Your task to perform on an android device: turn on the 24-hour format for clock Image 0: 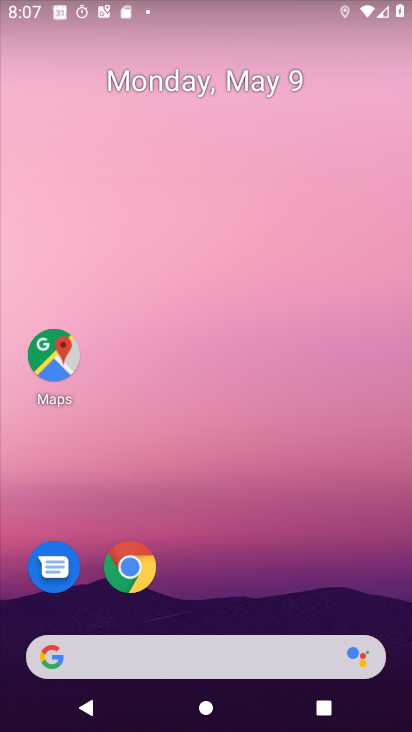
Step 0: drag from (262, 485) to (236, 71)
Your task to perform on an android device: turn on the 24-hour format for clock Image 1: 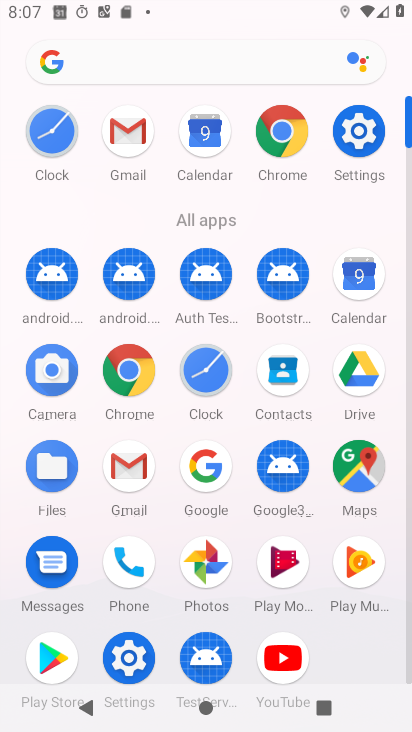
Step 1: click (216, 378)
Your task to perform on an android device: turn on the 24-hour format for clock Image 2: 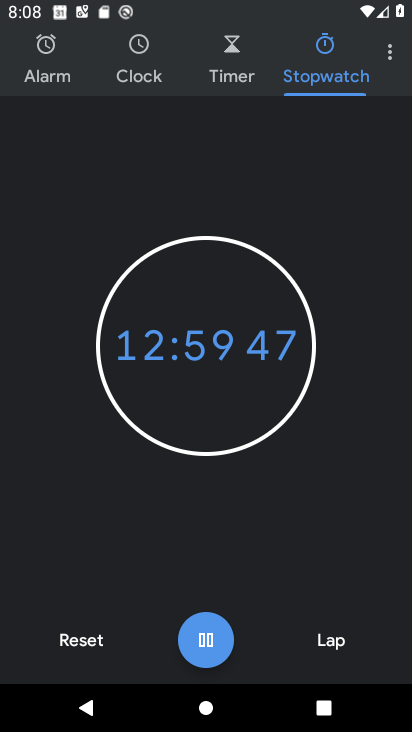
Step 2: click (395, 55)
Your task to perform on an android device: turn on the 24-hour format for clock Image 3: 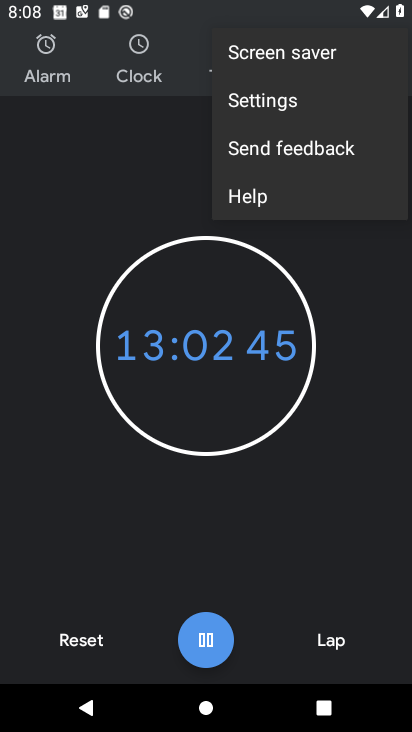
Step 3: click (342, 94)
Your task to perform on an android device: turn on the 24-hour format for clock Image 4: 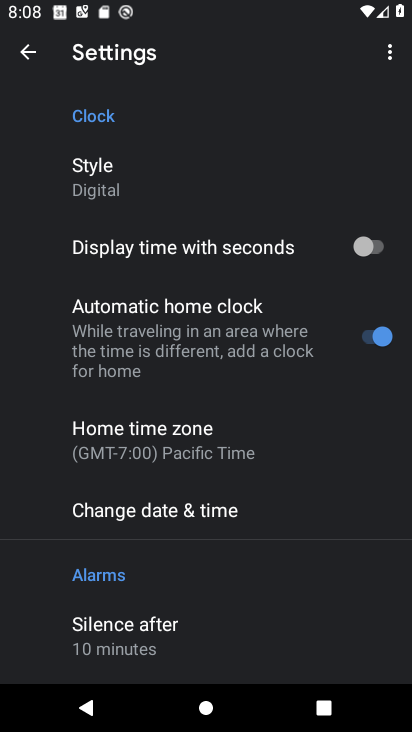
Step 4: click (207, 502)
Your task to perform on an android device: turn on the 24-hour format for clock Image 5: 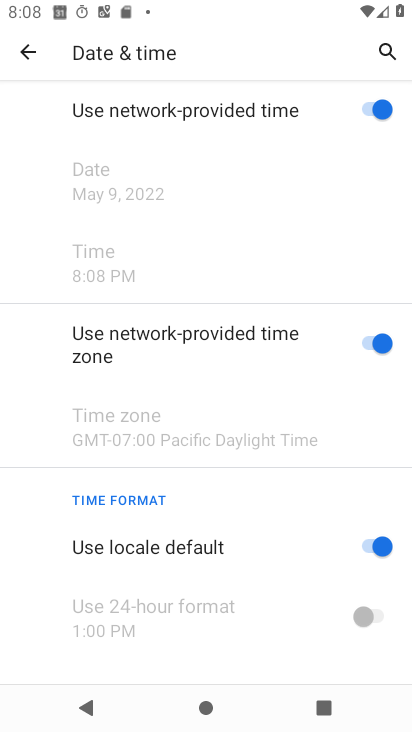
Step 5: drag from (184, 514) to (186, 237)
Your task to perform on an android device: turn on the 24-hour format for clock Image 6: 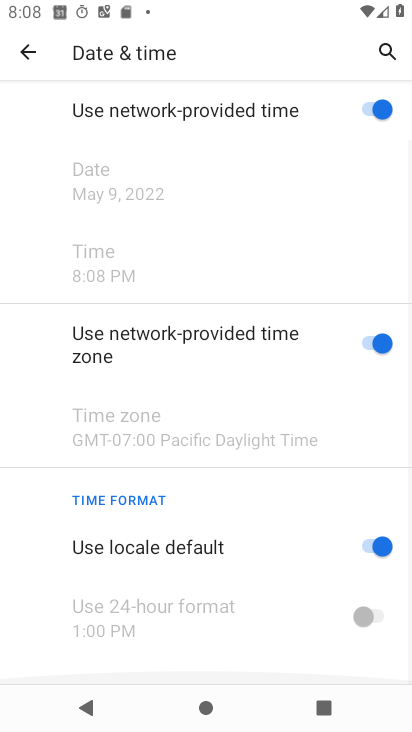
Step 6: click (381, 549)
Your task to perform on an android device: turn on the 24-hour format for clock Image 7: 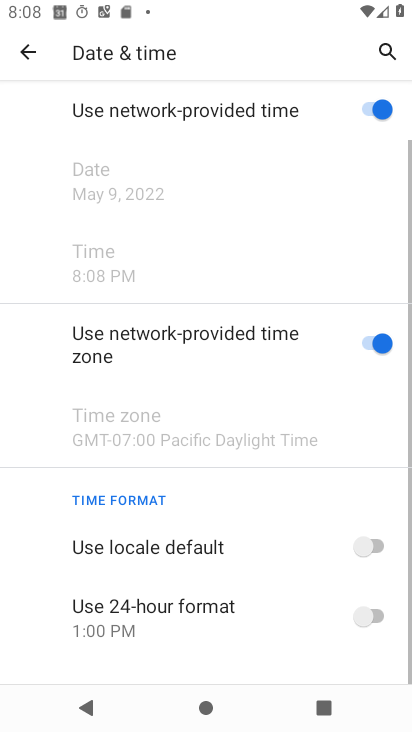
Step 7: click (348, 620)
Your task to perform on an android device: turn on the 24-hour format for clock Image 8: 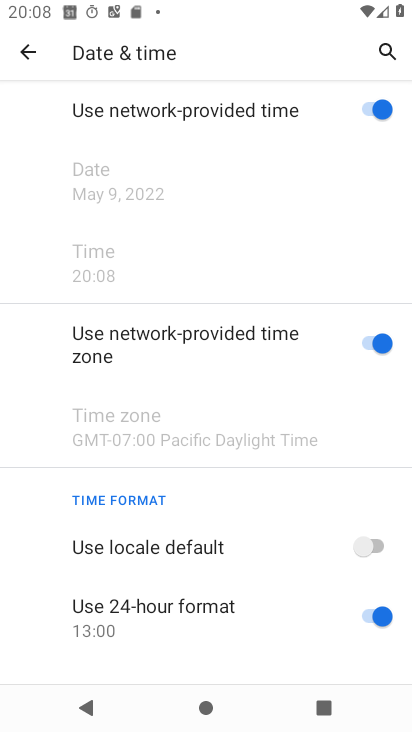
Step 8: task complete